Your task to perform on an android device: delete a single message in the gmail app Image 0: 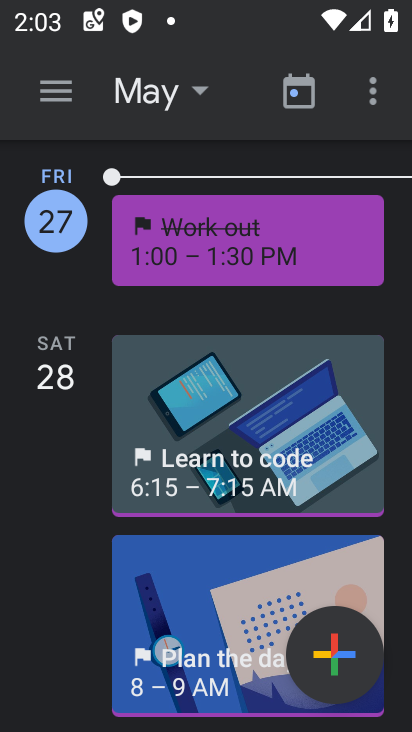
Step 0: press home button
Your task to perform on an android device: delete a single message in the gmail app Image 1: 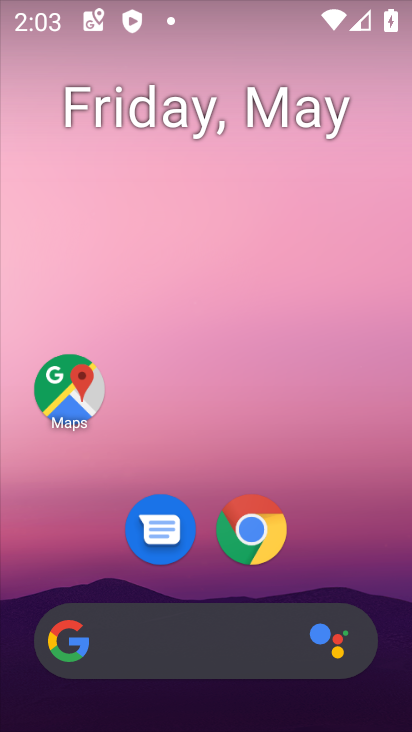
Step 1: drag from (352, 554) to (329, 211)
Your task to perform on an android device: delete a single message in the gmail app Image 2: 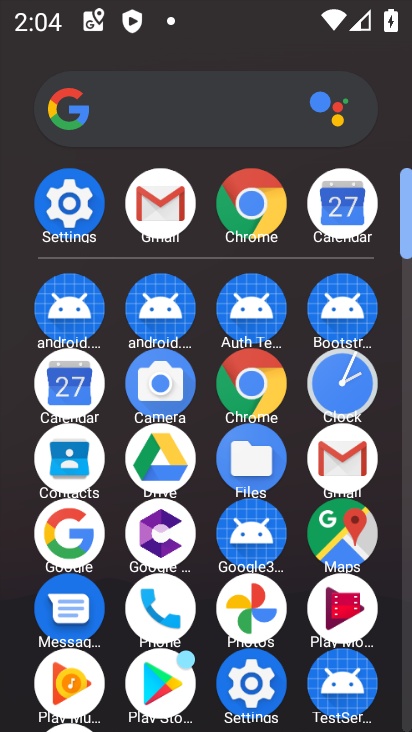
Step 2: click (172, 217)
Your task to perform on an android device: delete a single message in the gmail app Image 3: 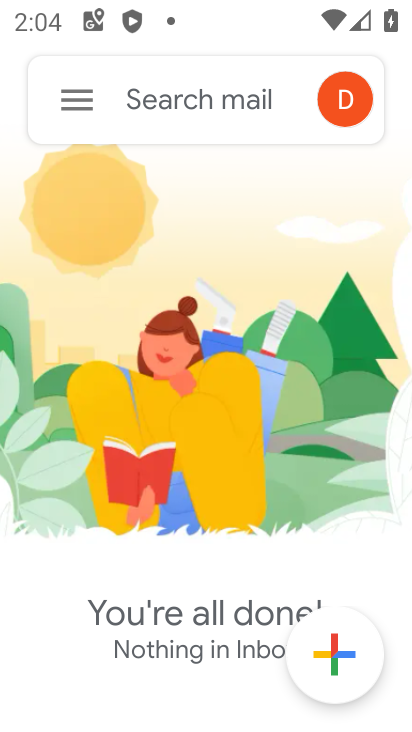
Step 3: click (61, 84)
Your task to perform on an android device: delete a single message in the gmail app Image 4: 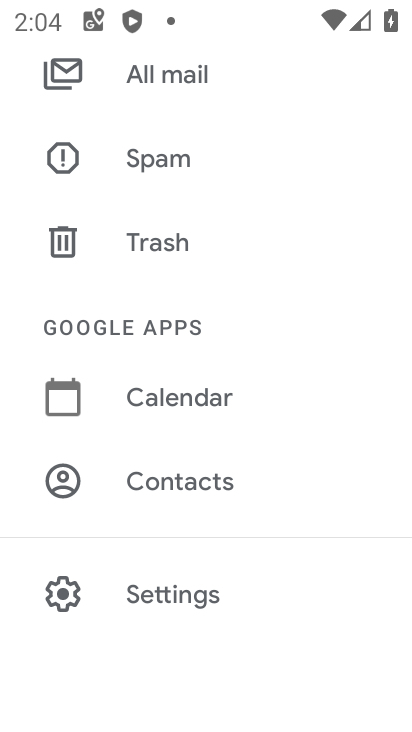
Step 4: click (123, 61)
Your task to perform on an android device: delete a single message in the gmail app Image 5: 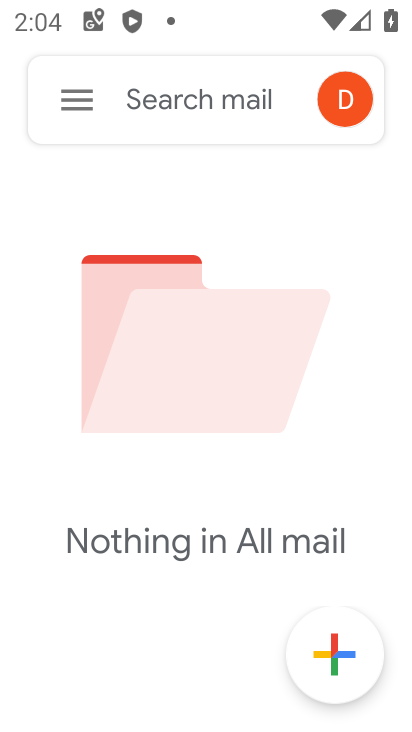
Step 5: task complete